Your task to perform on an android device: Open privacy settings Image 0: 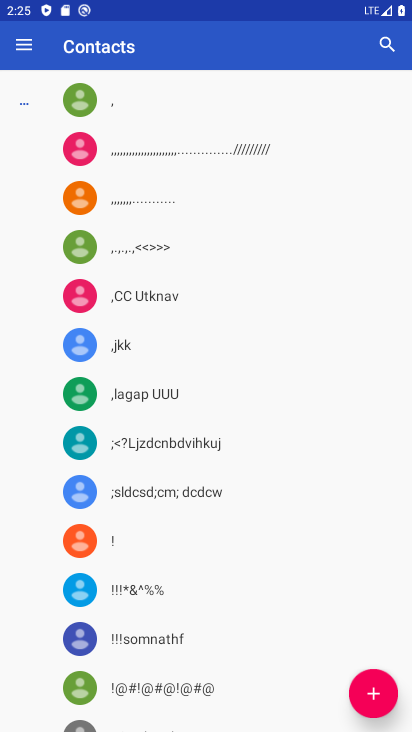
Step 0: press home button
Your task to perform on an android device: Open privacy settings Image 1: 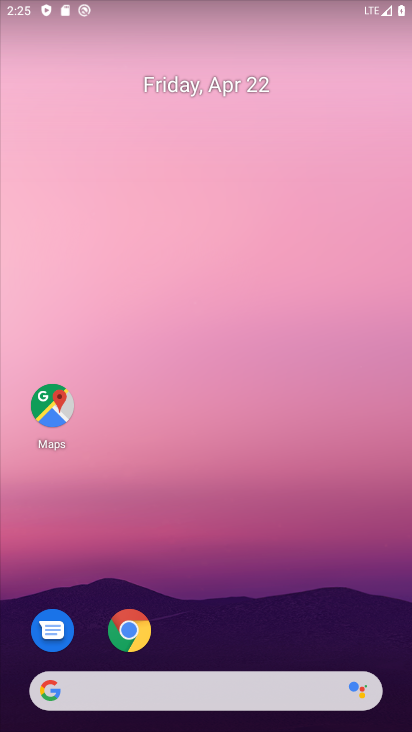
Step 1: drag from (351, 610) to (369, 254)
Your task to perform on an android device: Open privacy settings Image 2: 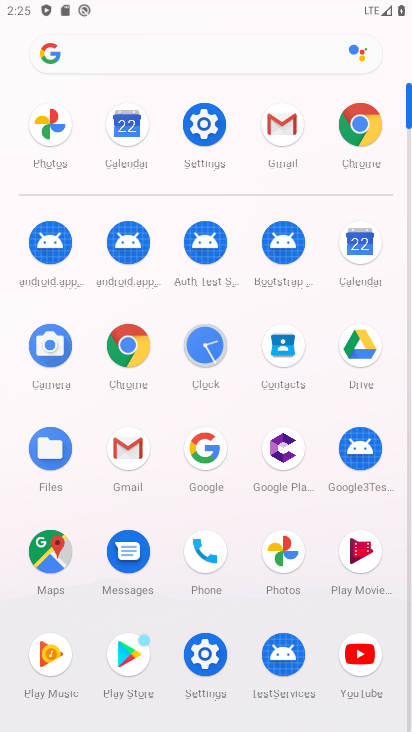
Step 2: click (206, 124)
Your task to perform on an android device: Open privacy settings Image 3: 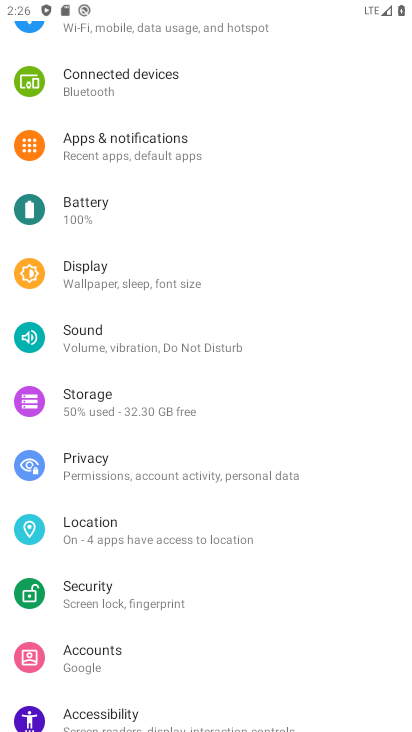
Step 3: click (141, 465)
Your task to perform on an android device: Open privacy settings Image 4: 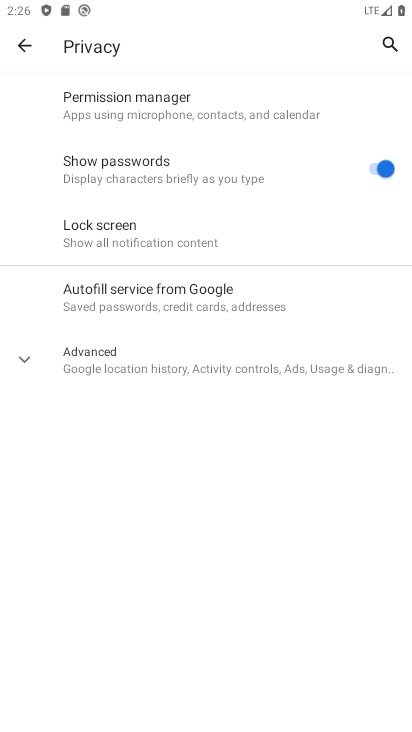
Step 4: task complete